Your task to perform on an android device: Search for seafood restaurants on Google Maps Image 0: 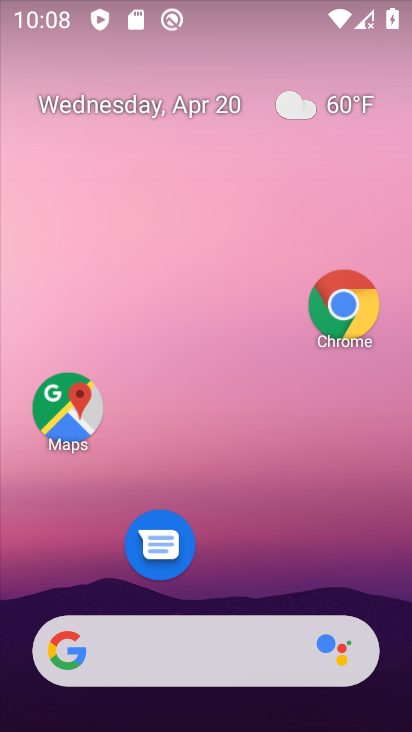
Step 0: drag from (237, 460) to (233, 172)
Your task to perform on an android device: Search for seafood restaurants on Google Maps Image 1: 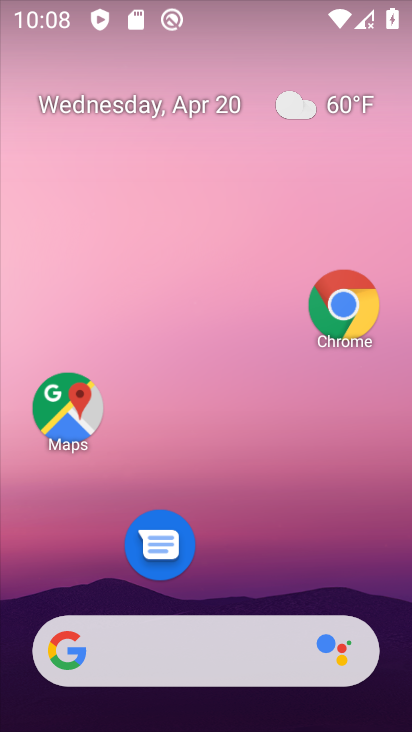
Step 1: drag from (216, 691) to (204, 429)
Your task to perform on an android device: Search for seafood restaurants on Google Maps Image 2: 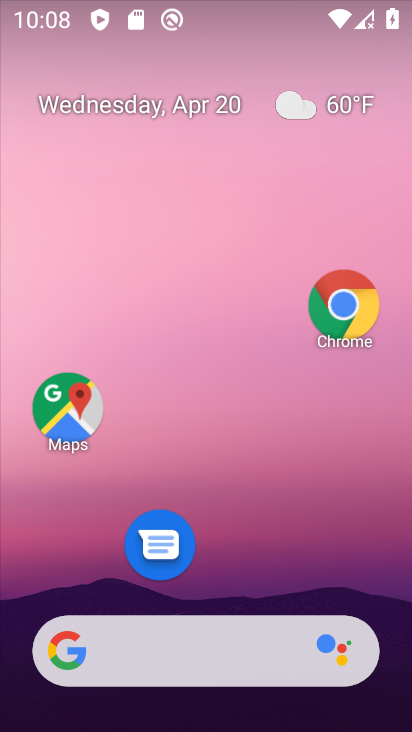
Step 2: drag from (233, 570) to (236, 403)
Your task to perform on an android device: Search for seafood restaurants on Google Maps Image 3: 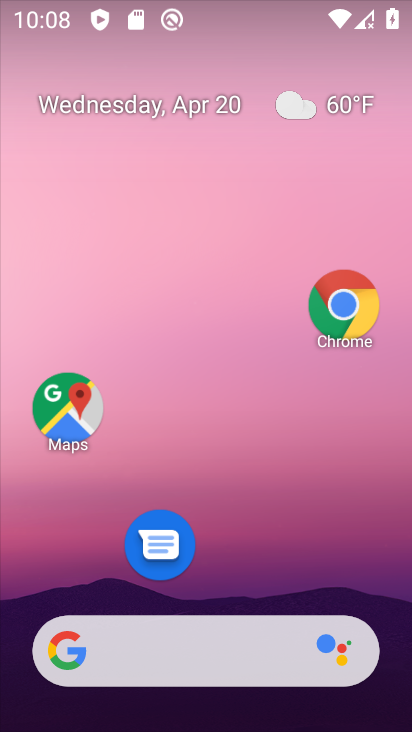
Step 3: drag from (238, 572) to (248, 5)
Your task to perform on an android device: Search for seafood restaurants on Google Maps Image 4: 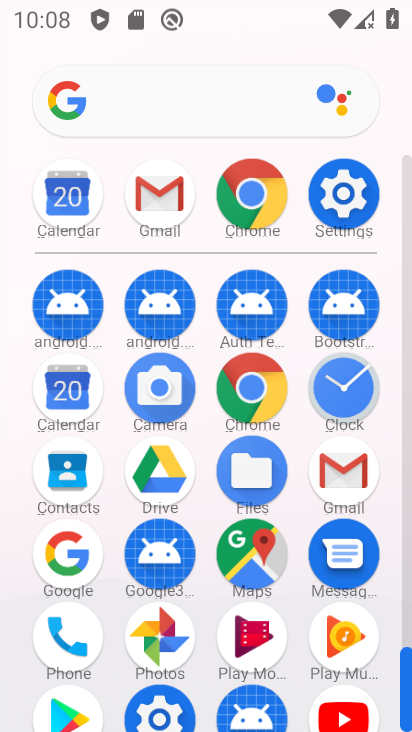
Step 4: click (270, 555)
Your task to perform on an android device: Search for seafood restaurants on Google Maps Image 5: 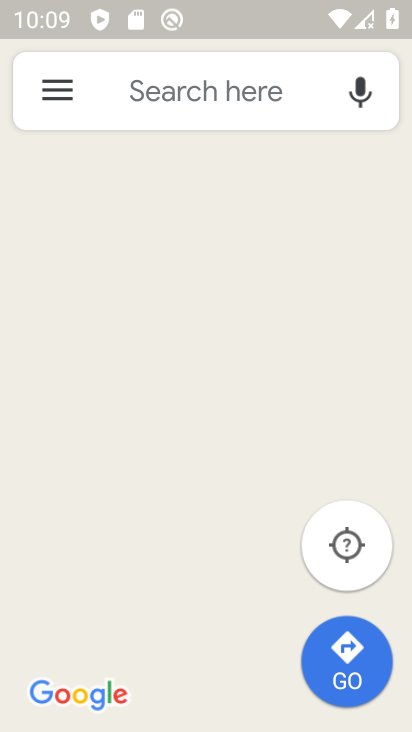
Step 5: click (255, 86)
Your task to perform on an android device: Search for seafood restaurants on Google Maps Image 6: 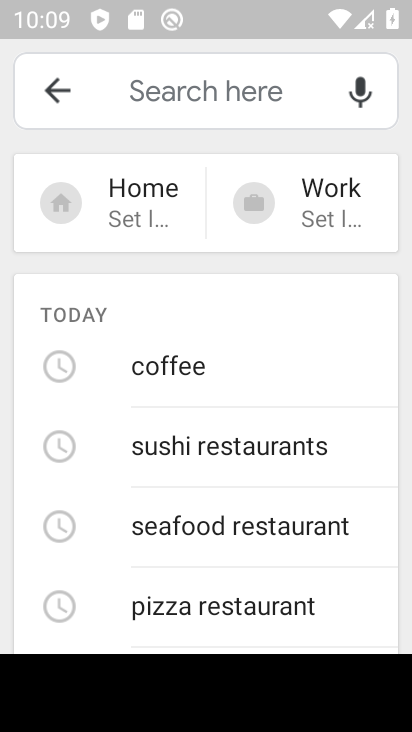
Step 6: click (292, 527)
Your task to perform on an android device: Search for seafood restaurants on Google Maps Image 7: 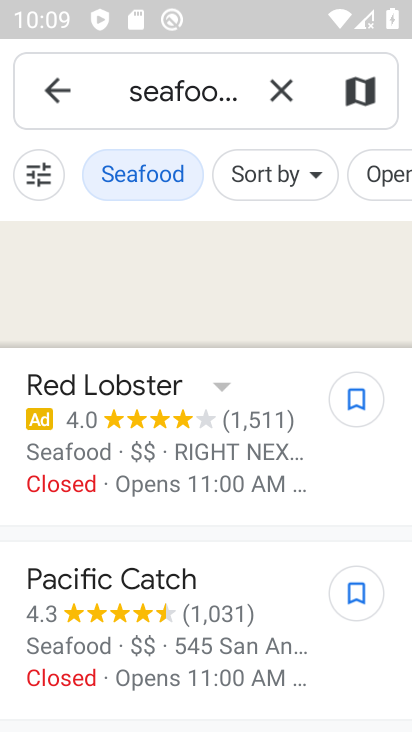
Step 7: task complete